Your task to perform on an android device: open wifi settings Image 0: 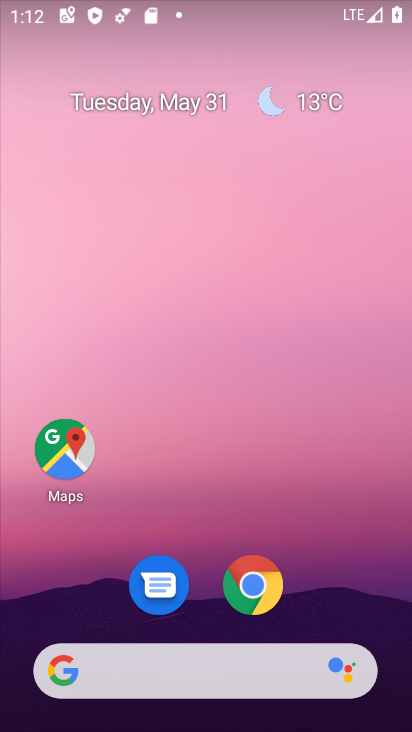
Step 0: drag from (202, 502) to (153, 94)
Your task to perform on an android device: open wifi settings Image 1: 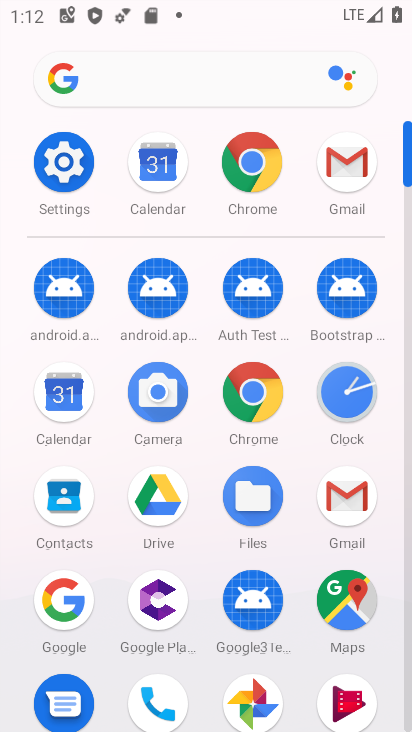
Step 1: click (65, 166)
Your task to perform on an android device: open wifi settings Image 2: 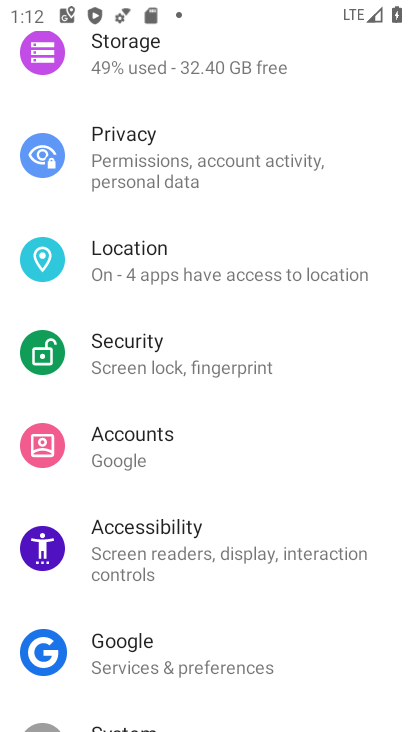
Step 2: drag from (233, 126) to (235, 661)
Your task to perform on an android device: open wifi settings Image 3: 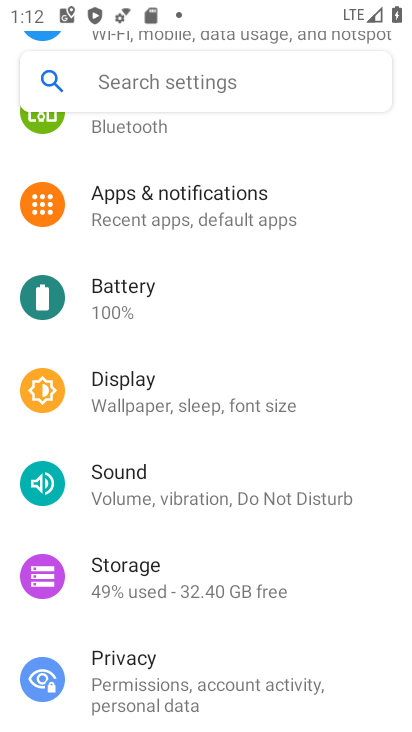
Step 3: drag from (244, 350) to (256, 623)
Your task to perform on an android device: open wifi settings Image 4: 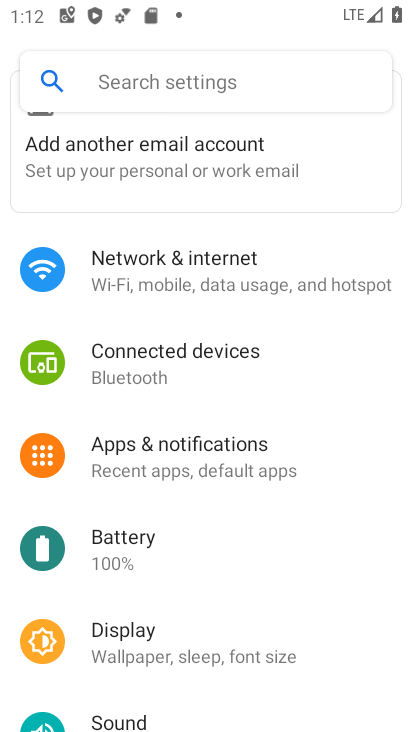
Step 4: click (249, 274)
Your task to perform on an android device: open wifi settings Image 5: 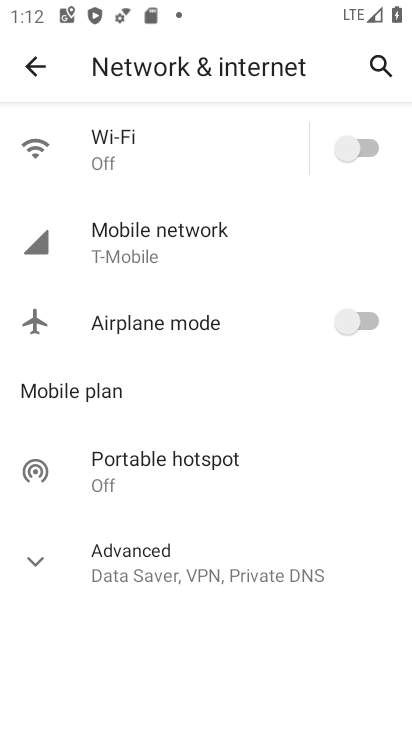
Step 5: click (130, 153)
Your task to perform on an android device: open wifi settings Image 6: 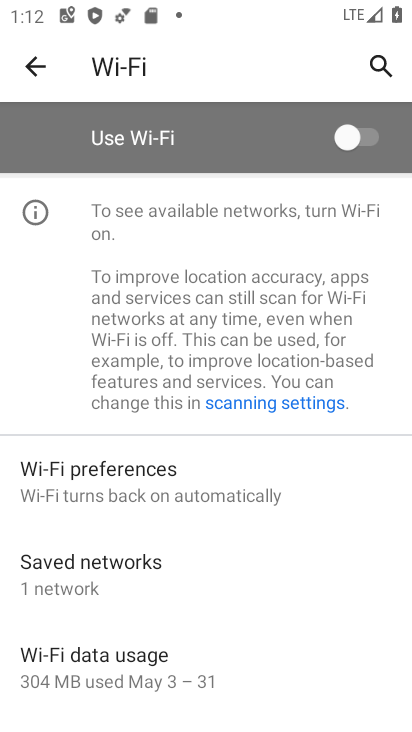
Step 6: task complete